Your task to perform on an android device: allow notifications from all sites in the chrome app Image 0: 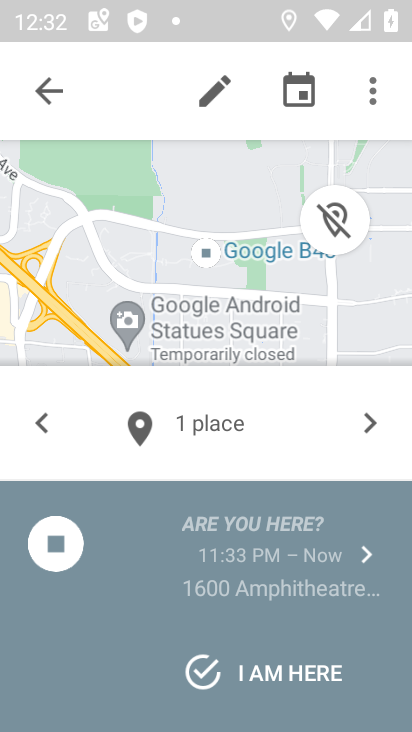
Step 0: press home button
Your task to perform on an android device: allow notifications from all sites in the chrome app Image 1: 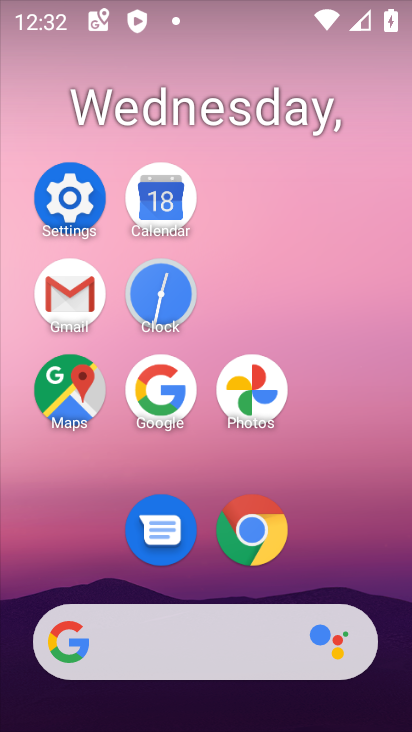
Step 1: click (264, 523)
Your task to perform on an android device: allow notifications from all sites in the chrome app Image 2: 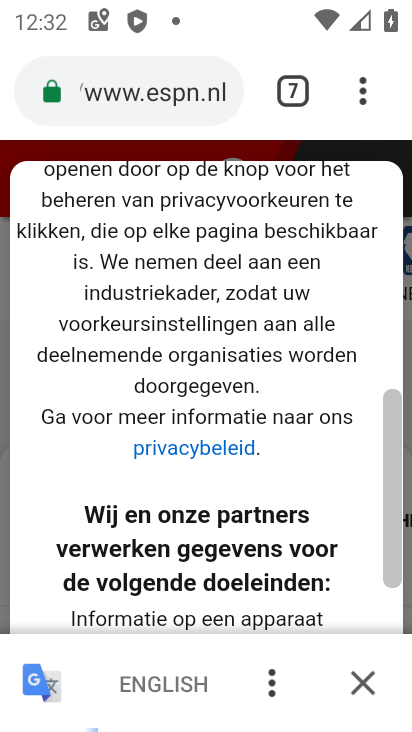
Step 2: click (364, 90)
Your task to perform on an android device: allow notifications from all sites in the chrome app Image 3: 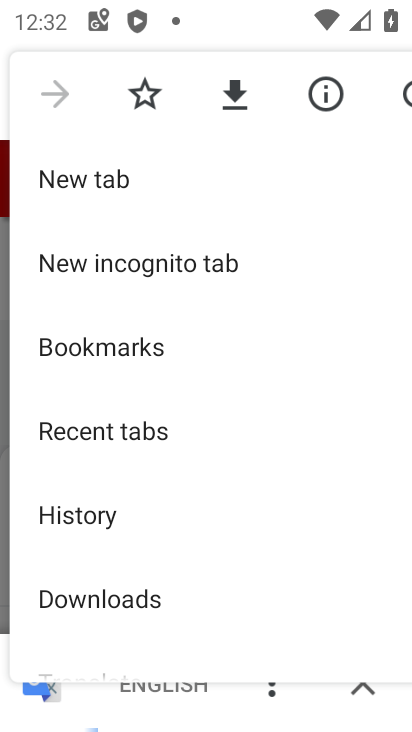
Step 3: drag from (223, 460) to (229, 100)
Your task to perform on an android device: allow notifications from all sites in the chrome app Image 4: 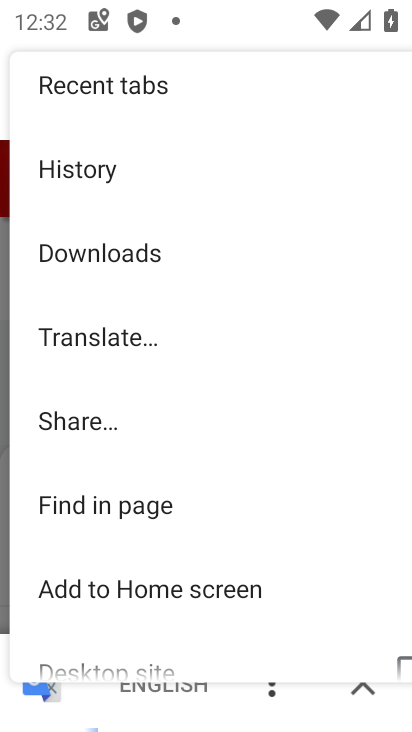
Step 4: drag from (228, 475) to (240, 132)
Your task to perform on an android device: allow notifications from all sites in the chrome app Image 5: 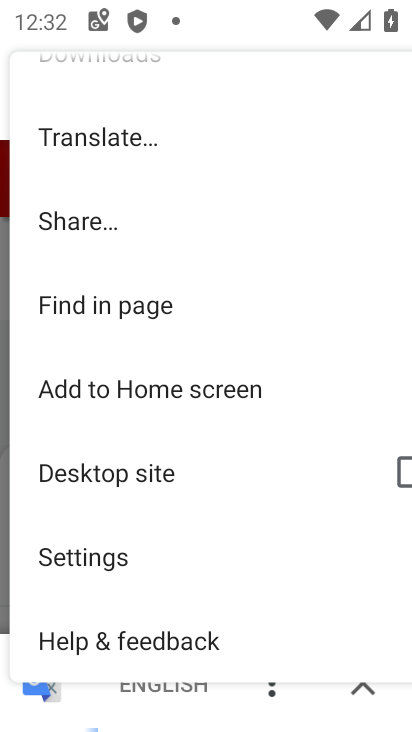
Step 5: click (172, 553)
Your task to perform on an android device: allow notifications from all sites in the chrome app Image 6: 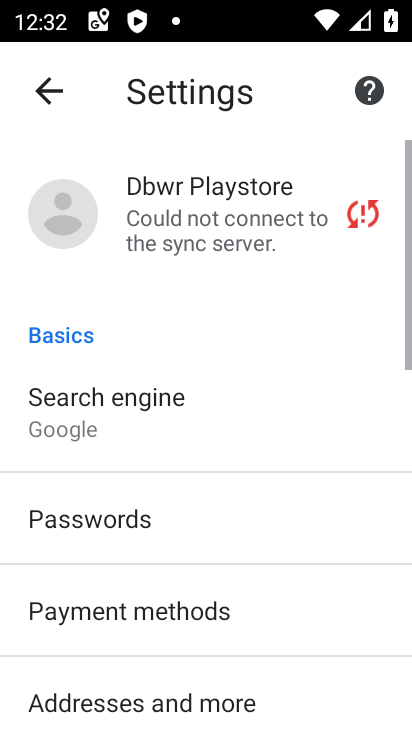
Step 6: drag from (172, 553) to (139, 93)
Your task to perform on an android device: allow notifications from all sites in the chrome app Image 7: 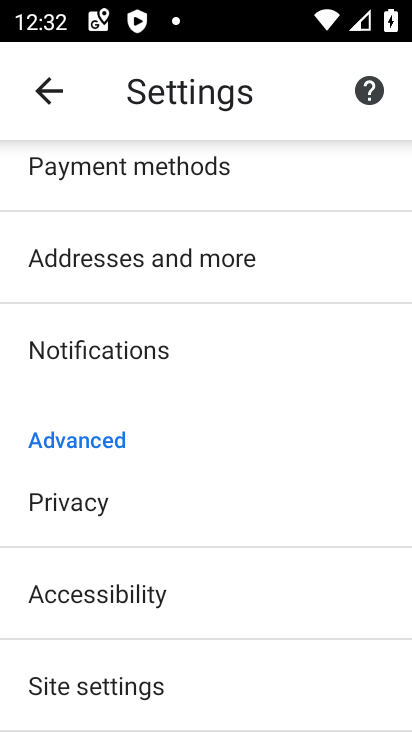
Step 7: click (225, 674)
Your task to perform on an android device: allow notifications from all sites in the chrome app Image 8: 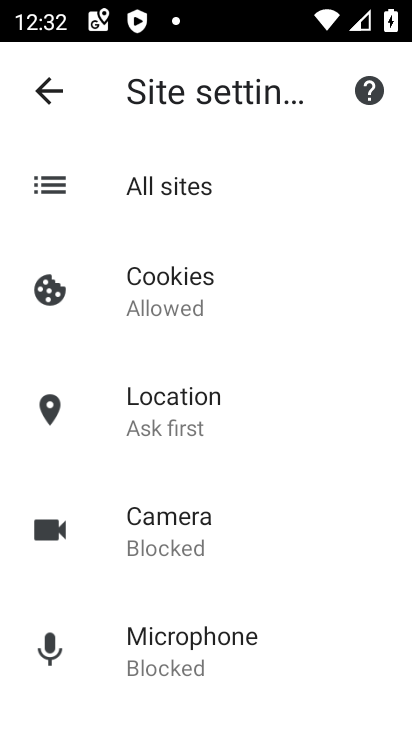
Step 8: click (214, 298)
Your task to perform on an android device: allow notifications from all sites in the chrome app Image 9: 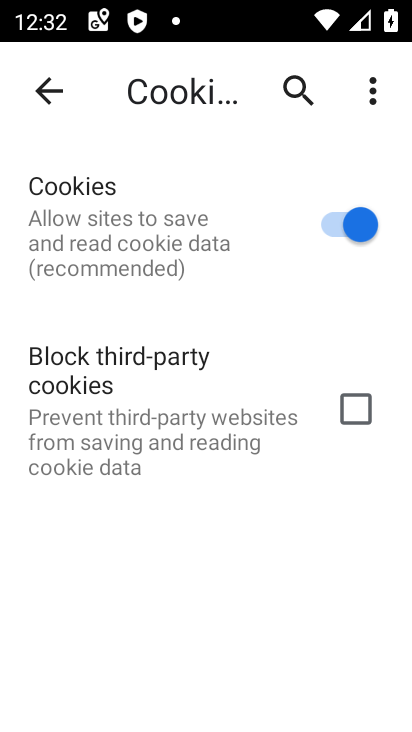
Step 9: task complete